Your task to perform on an android device: open device folders in google photos Image 0: 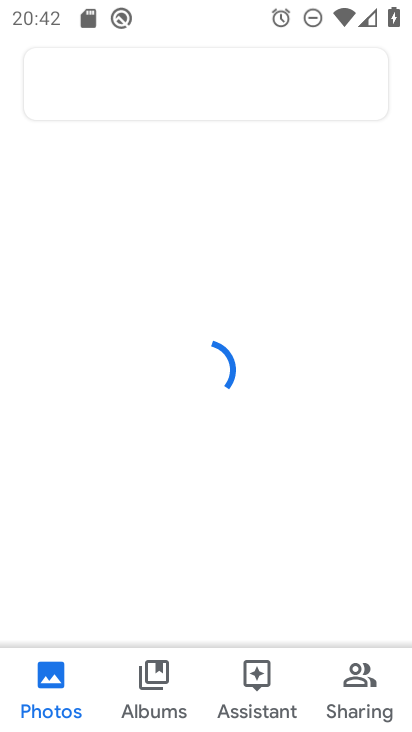
Step 0: press home button
Your task to perform on an android device: open device folders in google photos Image 1: 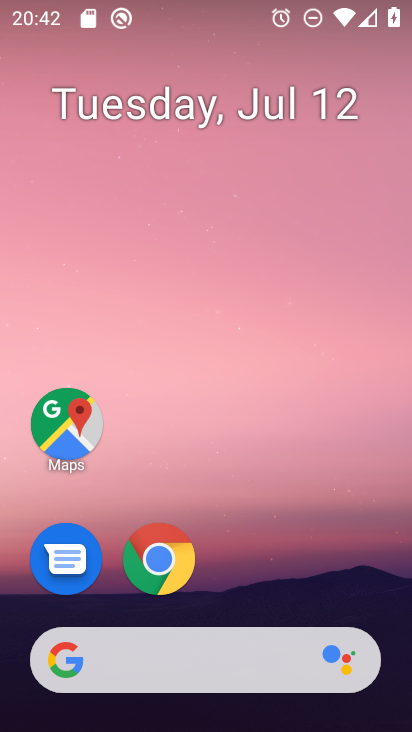
Step 1: drag from (382, 584) to (384, 127)
Your task to perform on an android device: open device folders in google photos Image 2: 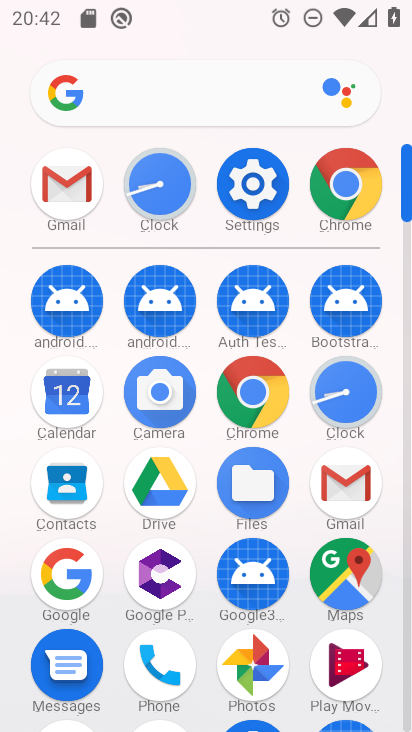
Step 2: click (255, 661)
Your task to perform on an android device: open device folders in google photos Image 3: 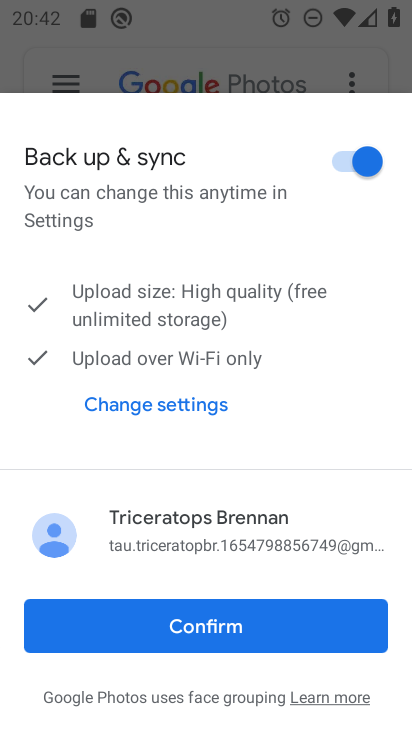
Step 3: click (236, 629)
Your task to perform on an android device: open device folders in google photos Image 4: 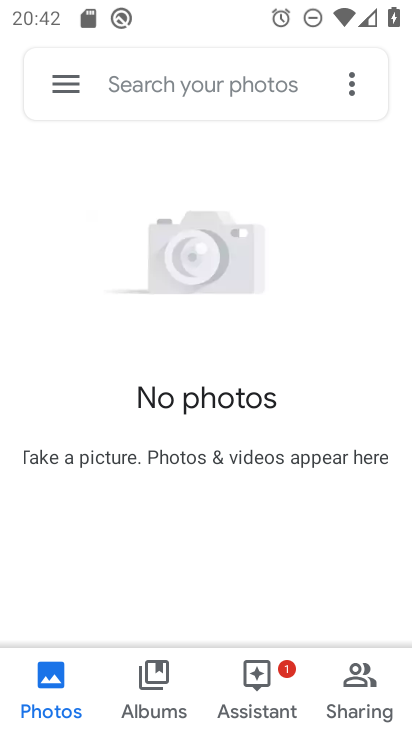
Step 4: click (72, 90)
Your task to perform on an android device: open device folders in google photos Image 5: 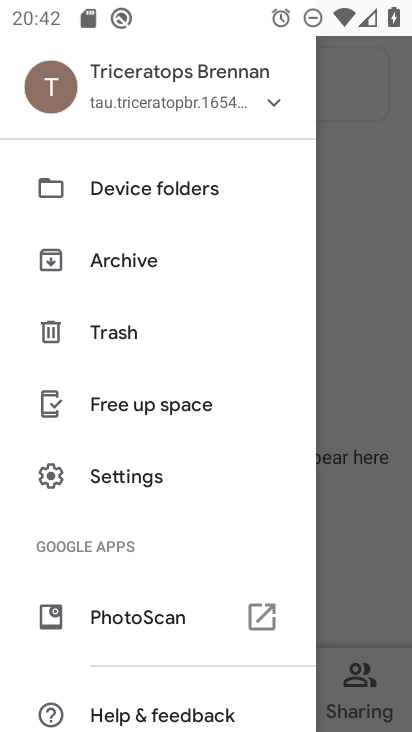
Step 5: click (173, 192)
Your task to perform on an android device: open device folders in google photos Image 6: 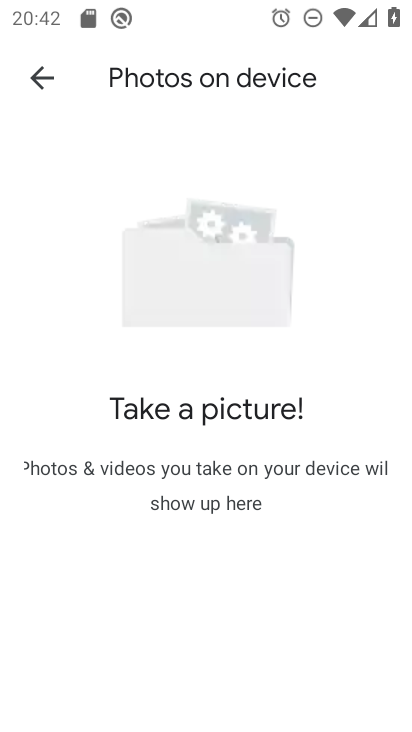
Step 6: task complete